Your task to perform on an android device: Play the last video I watched on Youtube Image 0: 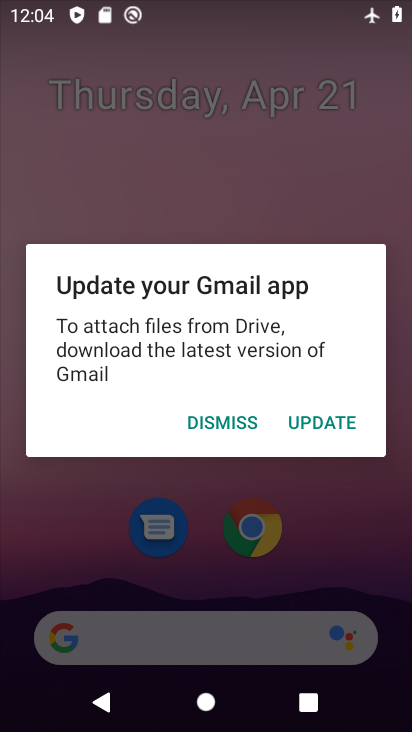
Step 0: press home button
Your task to perform on an android device: Play the last video I watched on Youtube Image 1: 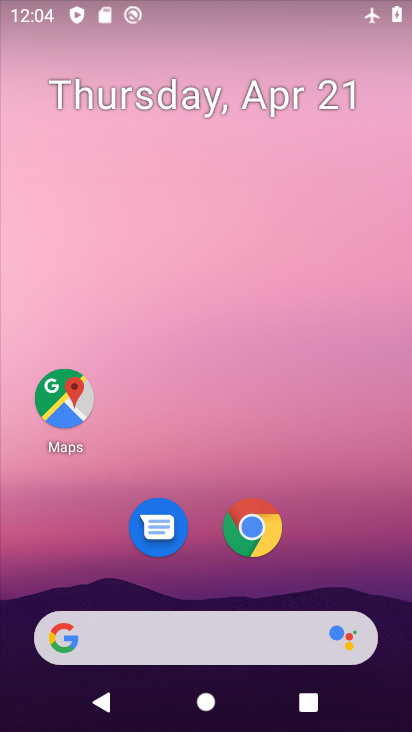
Step 1: drag from (349, 584) to (221, 138)
Your task to perform on an android device: Play the last video I watched on Youtube Image 2: 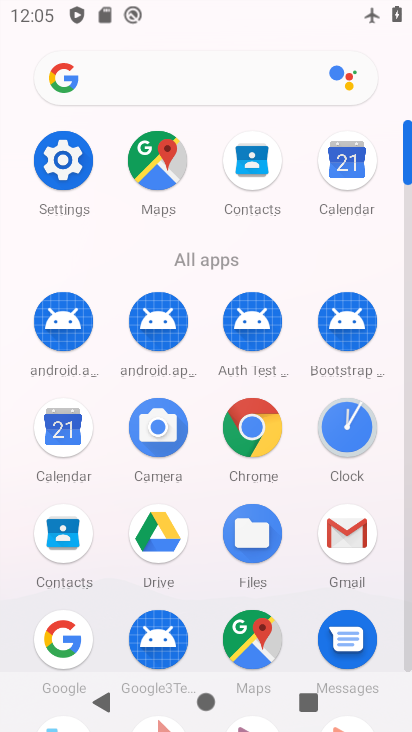
Step 2: click (408, 667)
Your task to perform on an android device: Play the last video I watched on Youtube Image 3: 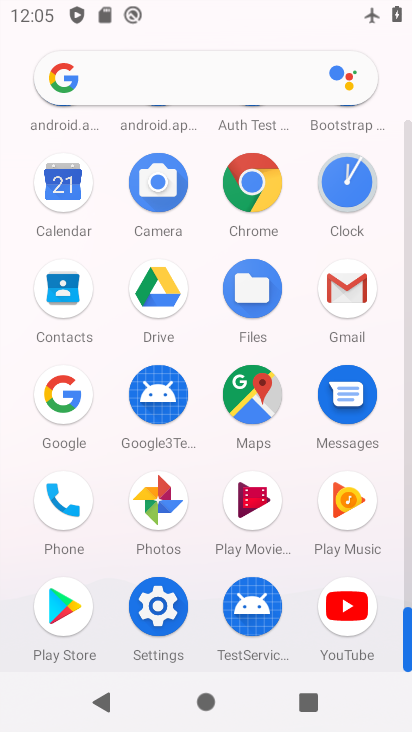
Step 3: click (340, 604)
Your task to perform on an android device: Play the last video I watched on Youtube Image 4: 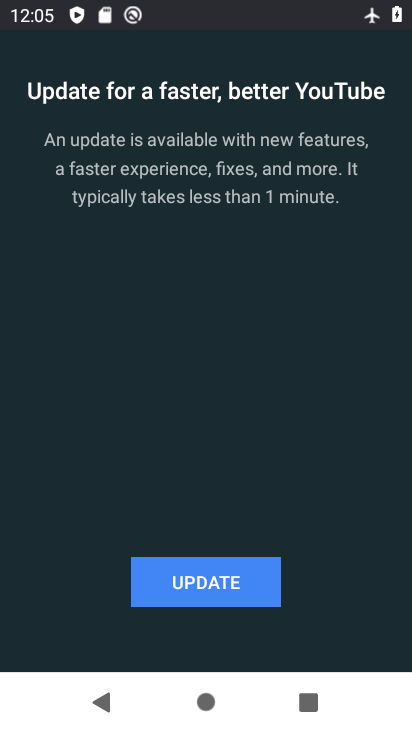
Step 4: click (238, 594)
Your task to perform on an android device: Play the last video I watched on Youtube Image 5: 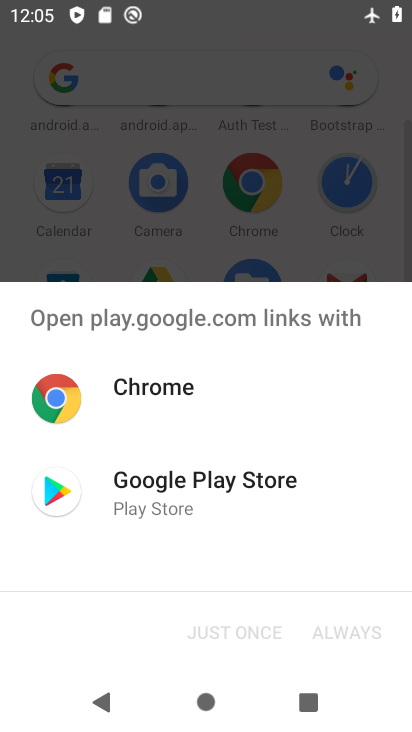
Step 5: click (165, 488)
Your task to perform on an android device: Play the last video I watched on Youtube Image 6: 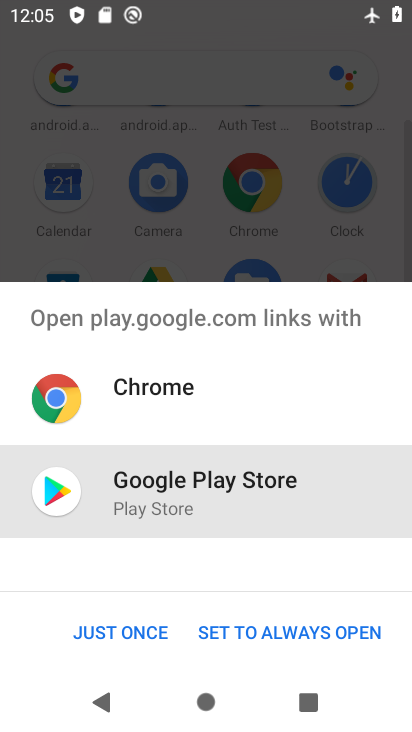
Step 6: click (63, 621)
Your task to perform on an android device: Play the last video I watched on Youtube Image 7: 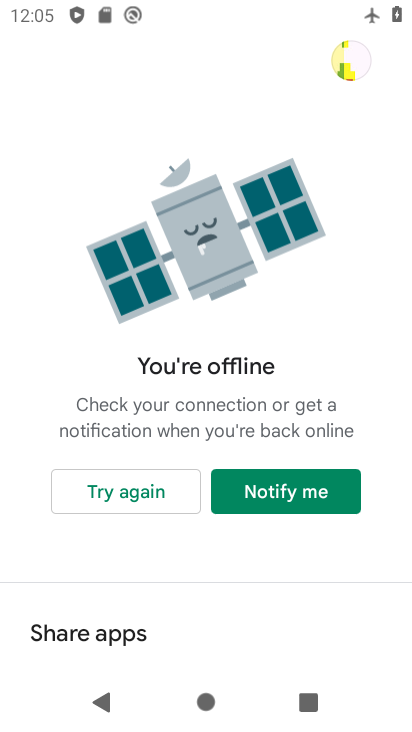
Step 7: task complete